Your task to perform on an android device: uninstall "Microsoft Authenticator" Image 0: 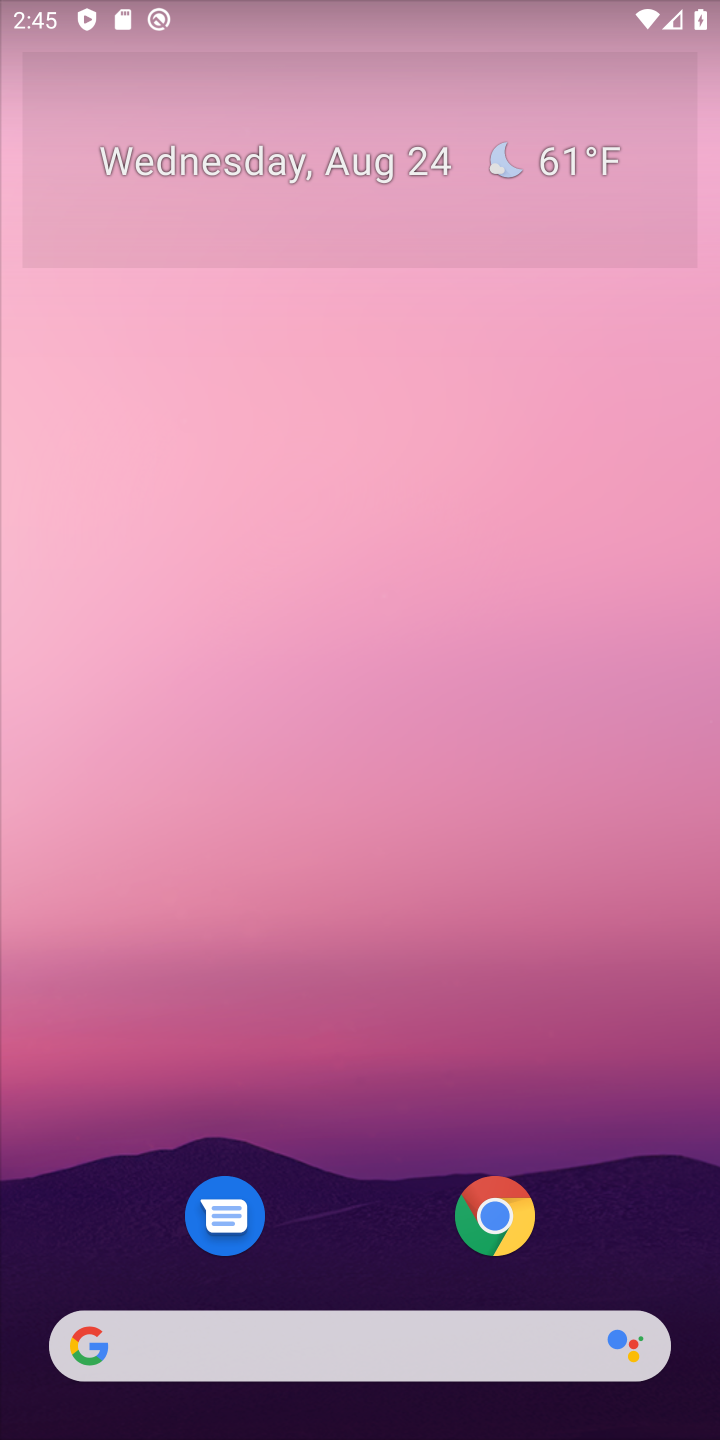
Step 0: press home button
Your task to perform on an android device: uninstall "Microsoft Authenticator" Image 1: 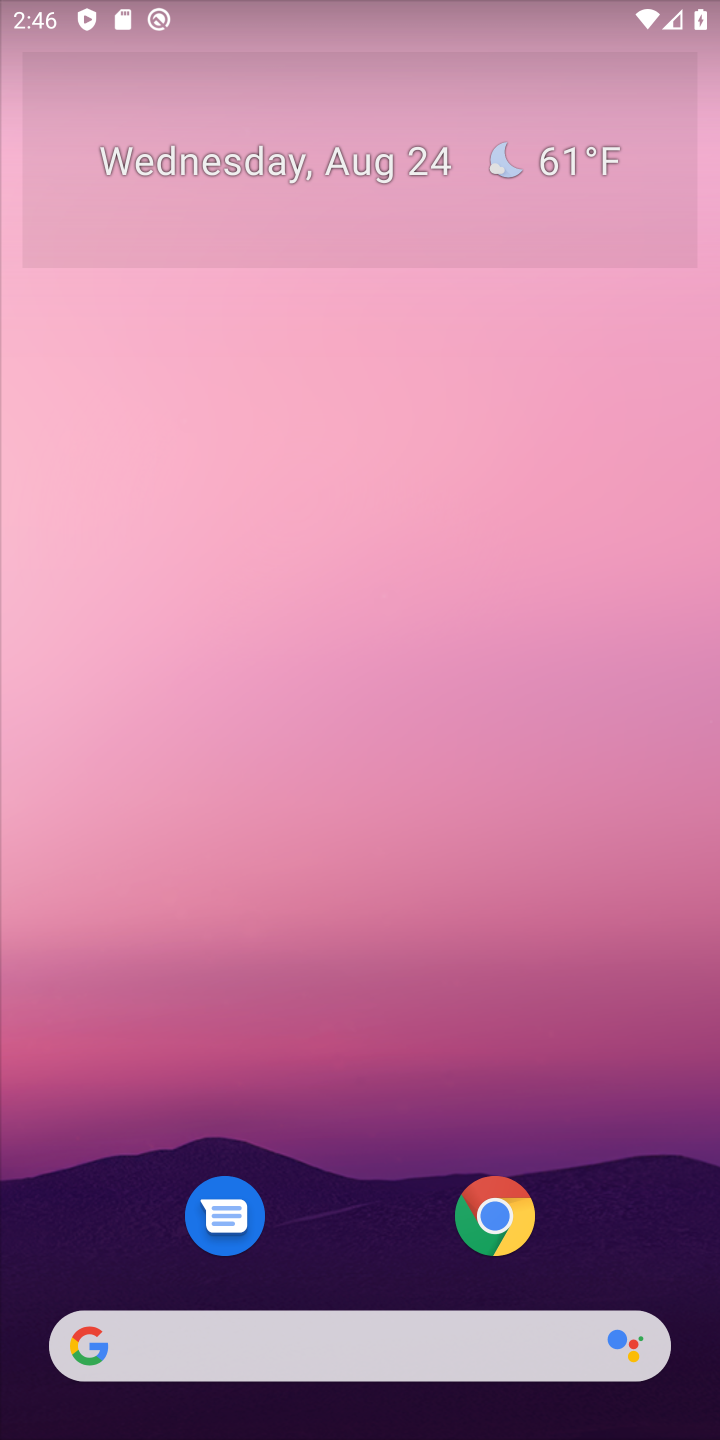
Step 1: drag from (620, 1118) to (607, 168)
Your task to perform on an android device: uninstall "Microsoft Authenticator" Image 2: 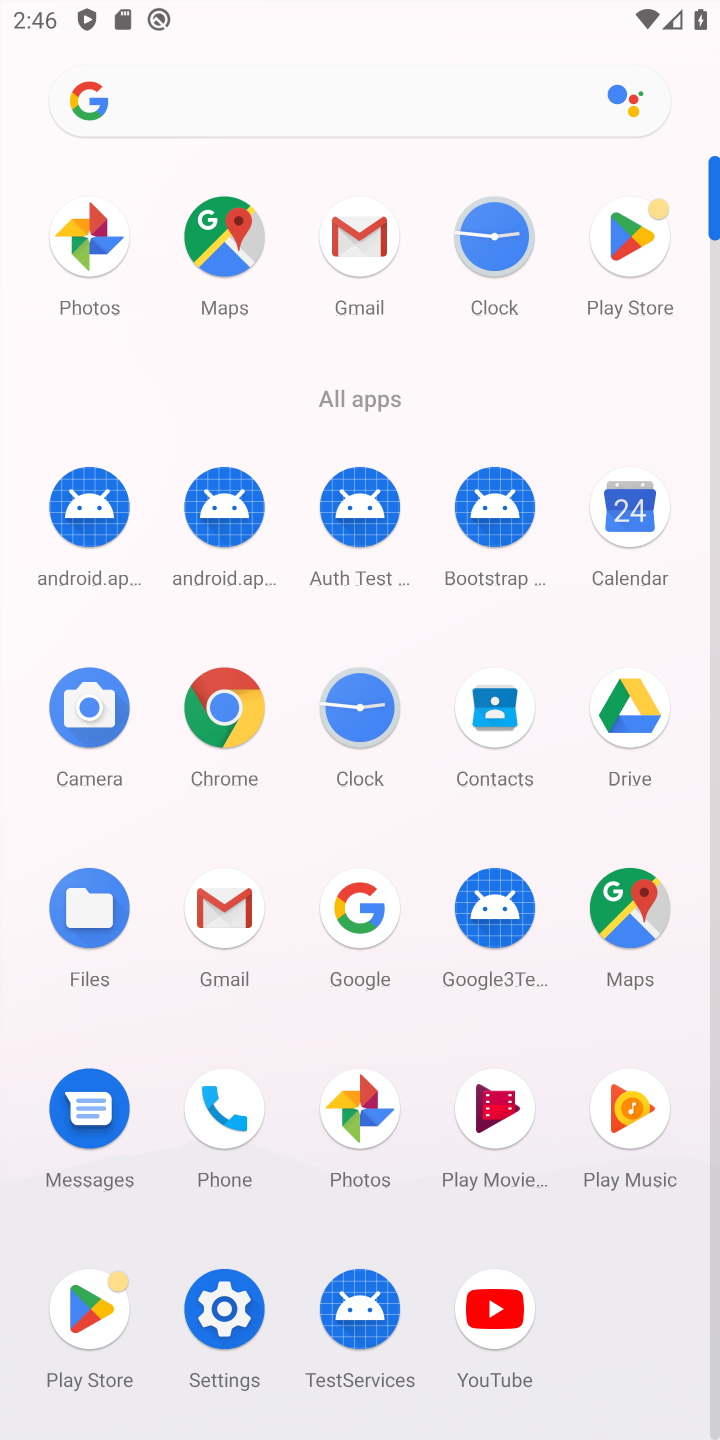
Step 2: click (637, 249)
Your task to perform on an android device: uninstall "Microsoft Authenticator" Image 3: 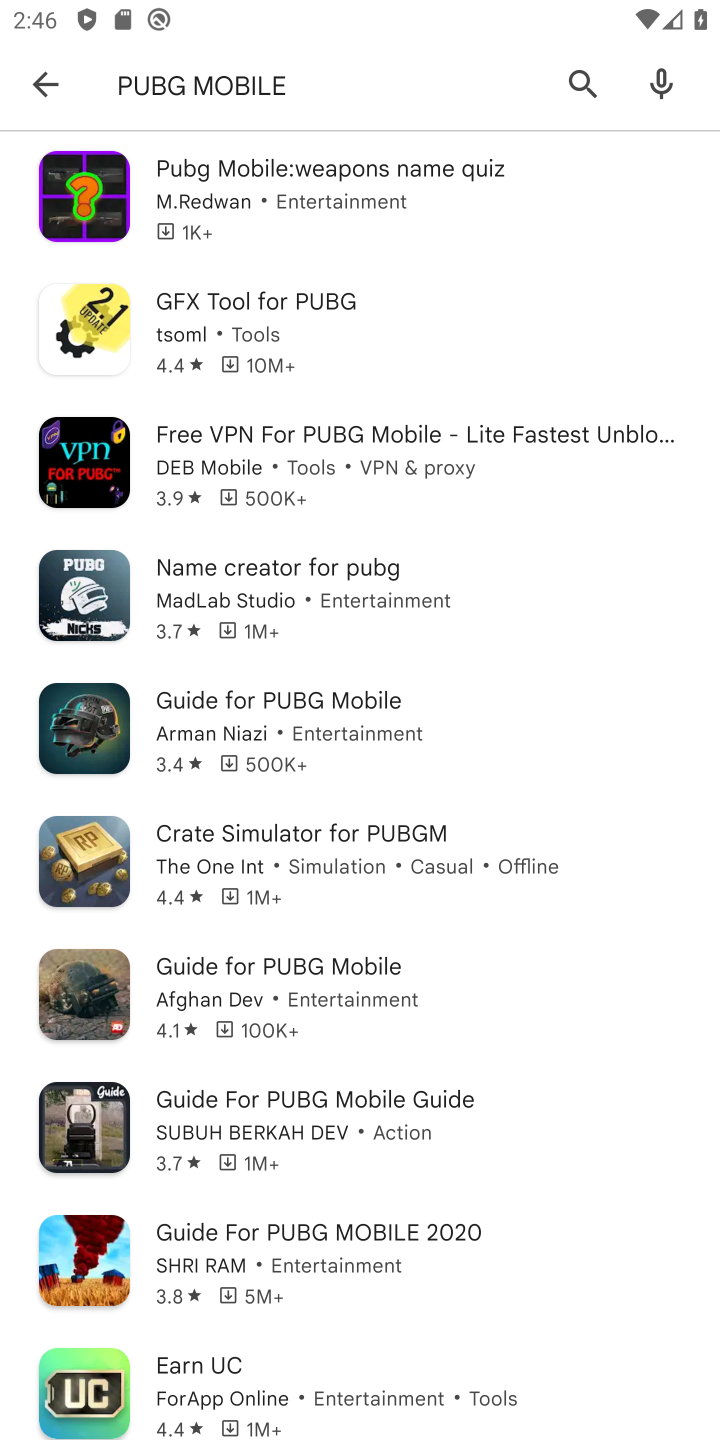
Step 3: press back button
Your task to perform on an android device: uninstall "Microsoft Authenticator" Image 4: 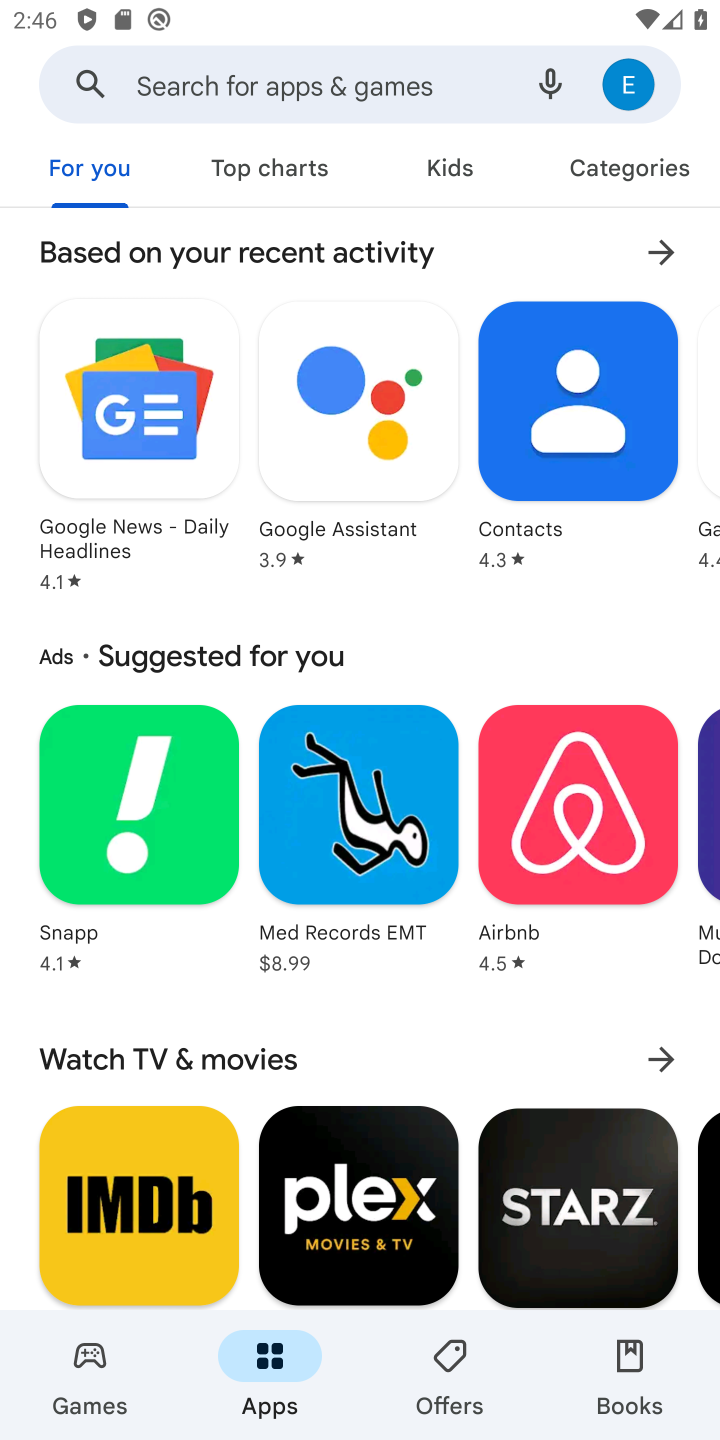
Step 4: click (418, 85)
Your task to perform on an android device: uninstall "Microsoft Authenticator" Image 5: 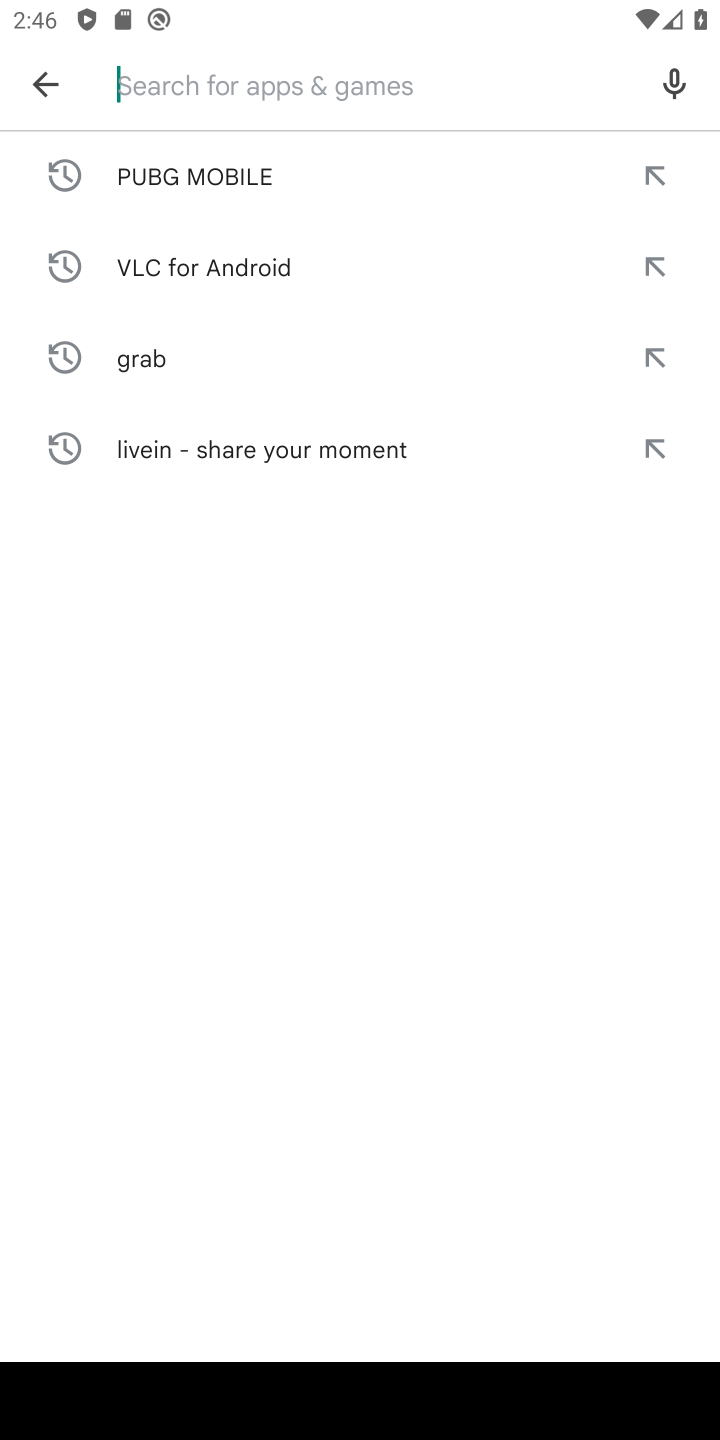
Step 5: type "Microsoft Authenticator"
Your task to perform on an android device: uninstall "Microsoft Authenticator" Image 6: 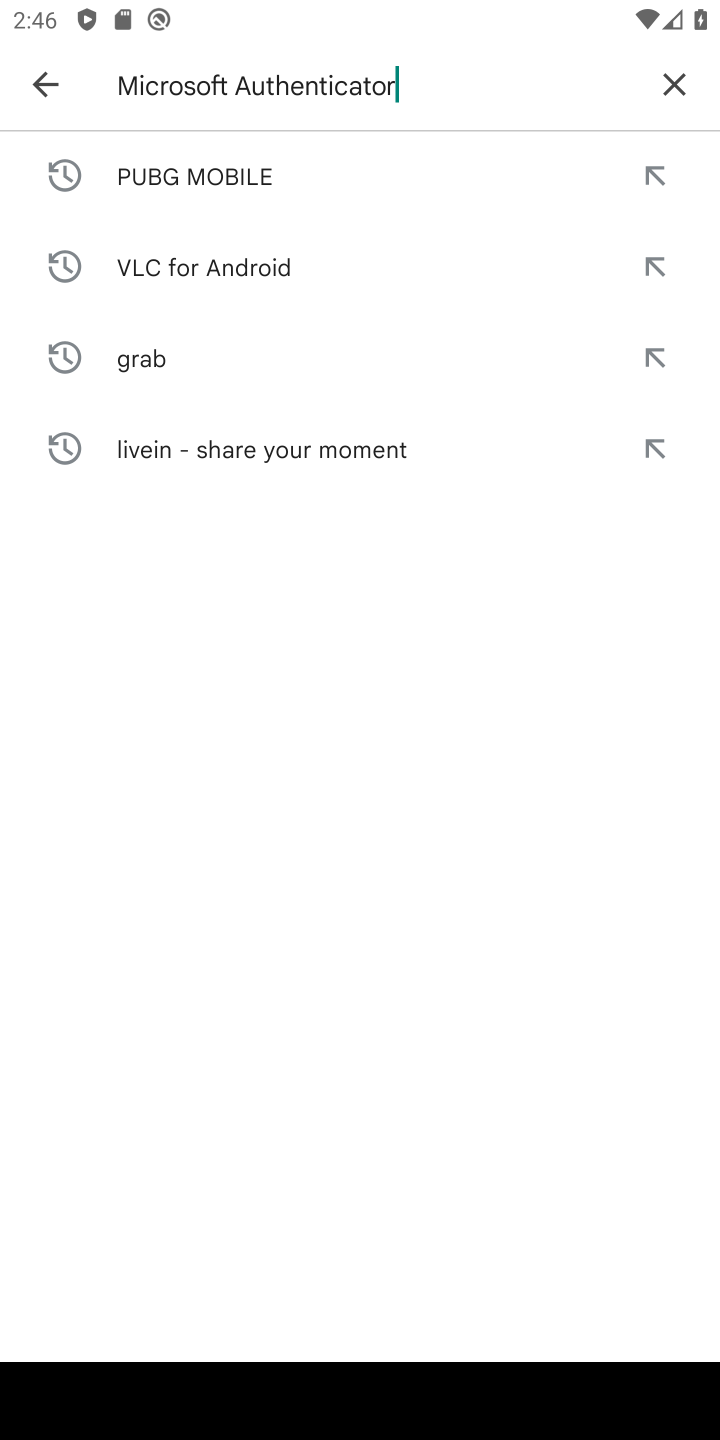
Step 6: press enter
Your task to perform on an android device: uninstall "Microsoft Authenticator" Image 7: 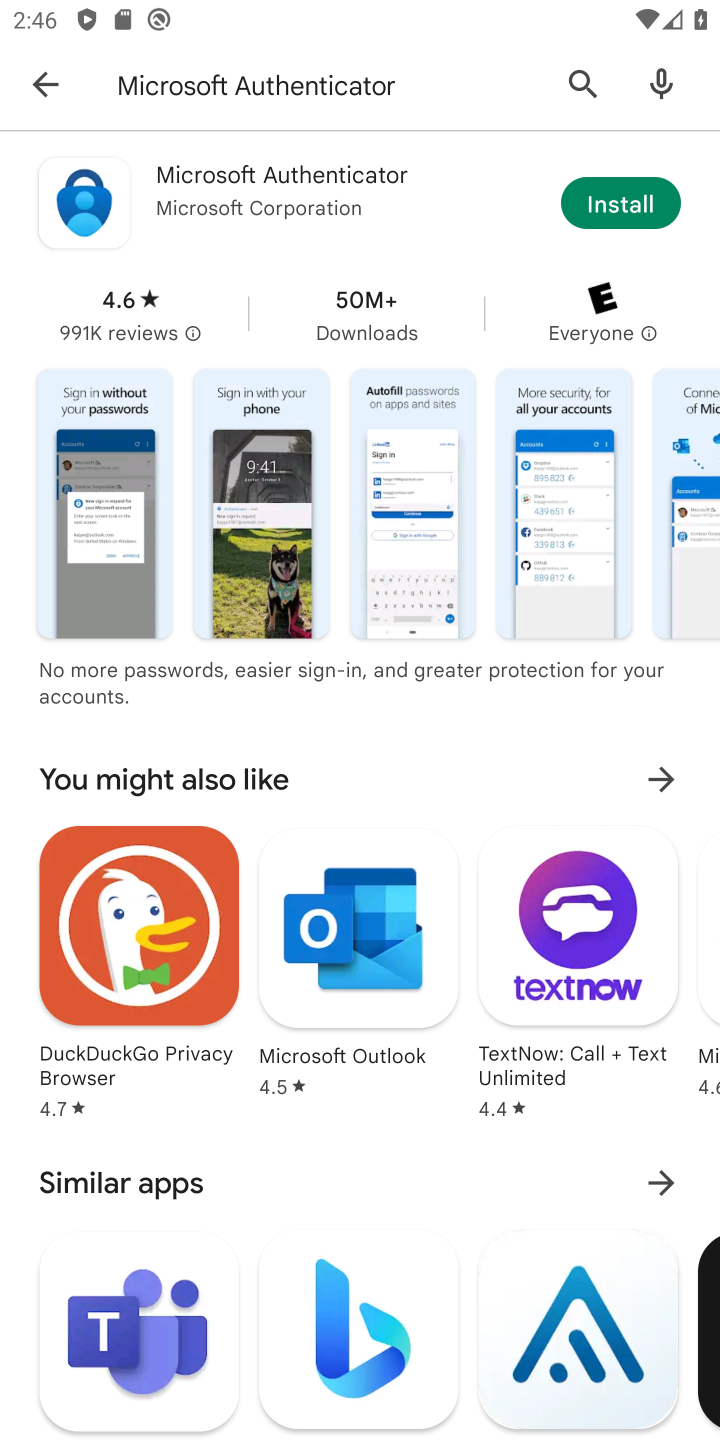
Step 7: task complete